Your task to perform on an android device: Find coffee shops on Maps Image 0: 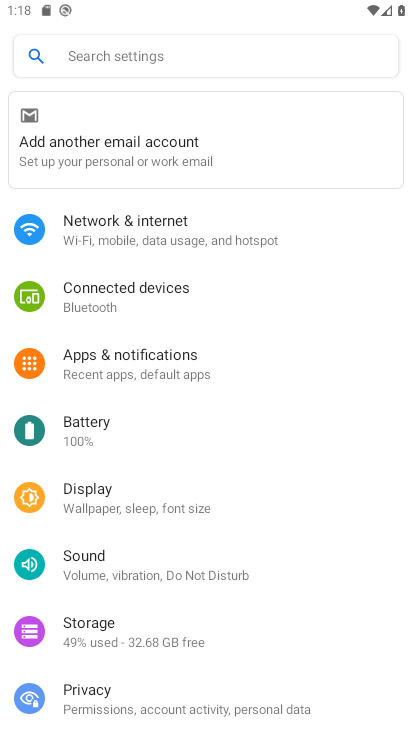
Step 0: press home button
Your task to perform on an android device: Find coffee shops on Maps Image 1: 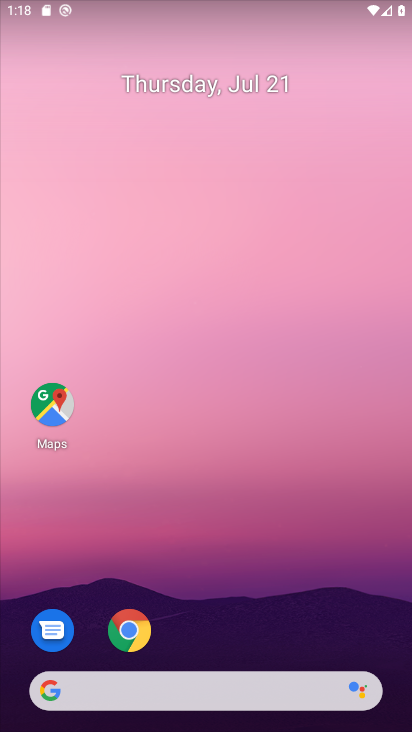
Step 1: click (69, 405)
Your task to perform on an android device: Find coffee shops on Maps Image 2: 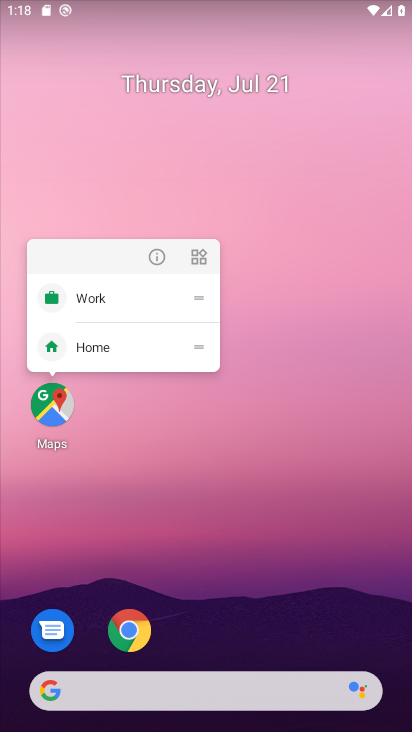
Step 2: click (56, 445)
Your task to perform on an android device: Find coffee shops on Maps Image 3: 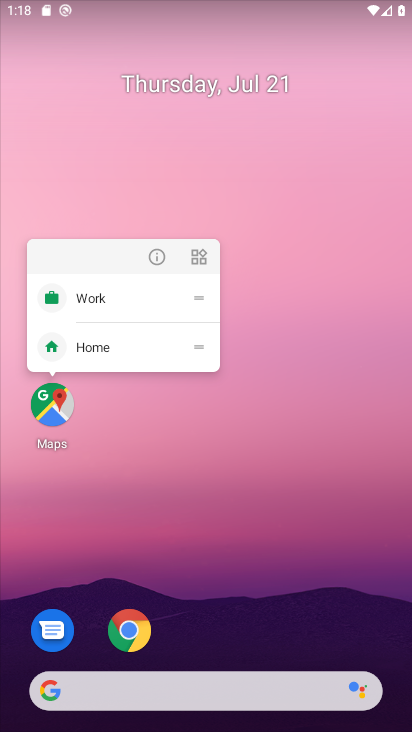
Step 3: click (19, 431)
Your task to perform on an android device: Find coffee shops on Maps Image 4: 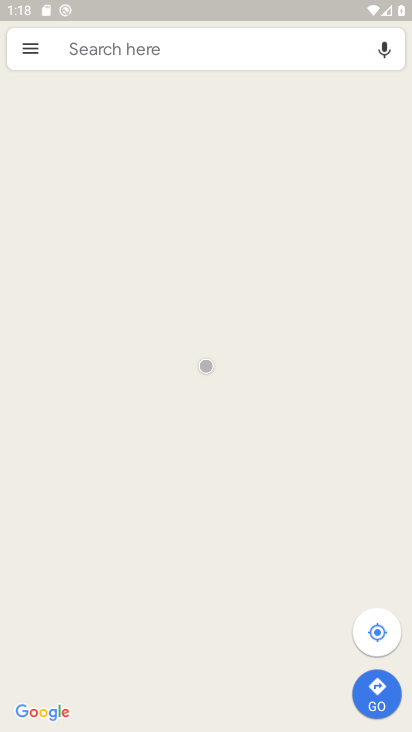
Step 4: click (233, 38)
Your task to perform on an android device: Find coffee shops on Maps Image 5: 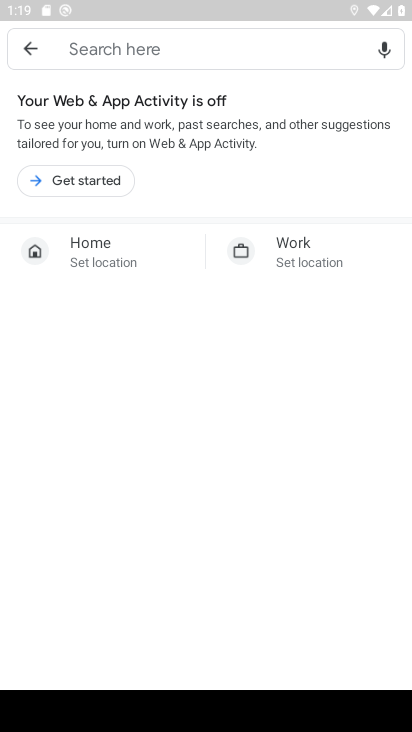
Step 5: type "coffee shops"
Your task to perform on an android device: Find coffee shops on Maps Image 6: 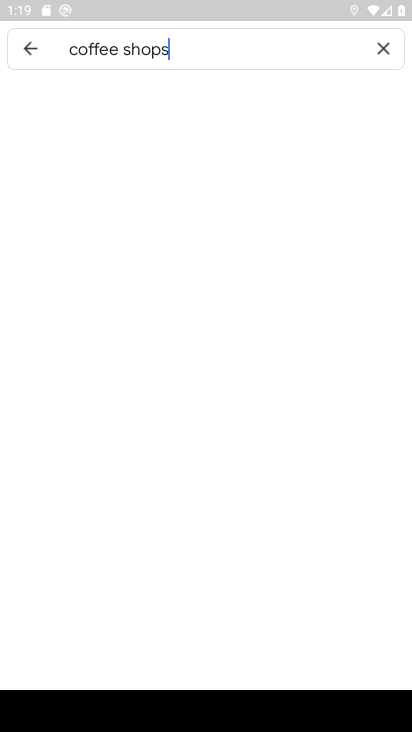
Step 6: type ""
Your task to perform on an android device: Find coffee shops on Maps Image 7: 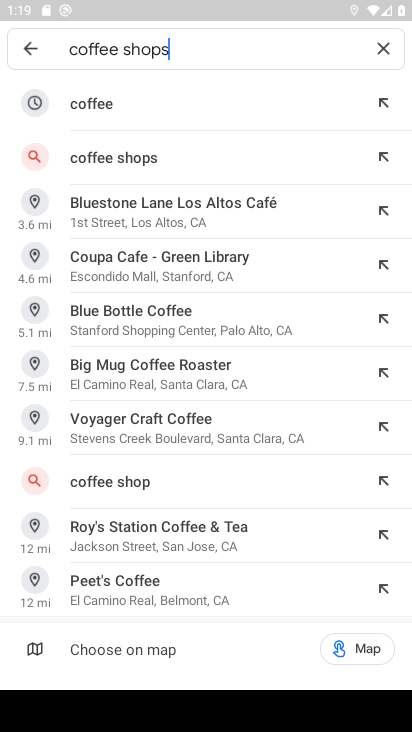
Step 7: click (143, 147)
Your task to perform on an android device: Find coffee shops on Maps Image 8: 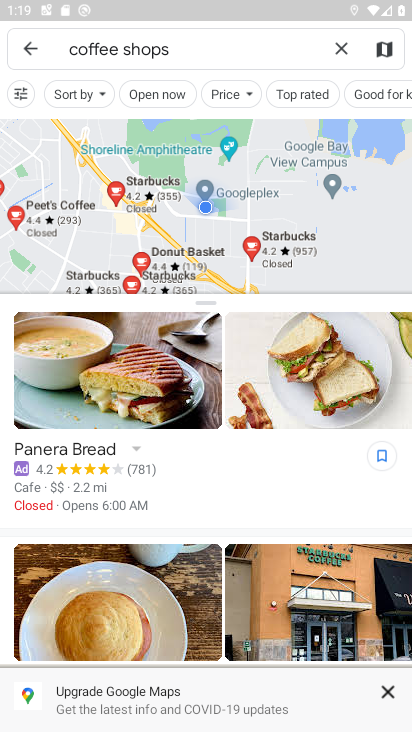
Step 8: task complete